Your task to perform on an android device: Go to Google Image 0: 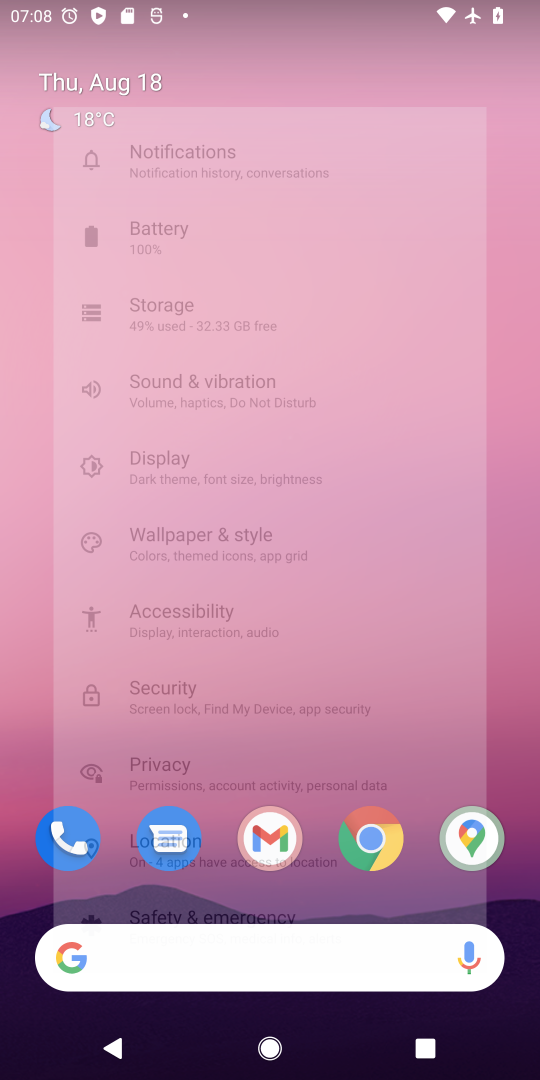
Step 0: press home button
Your task to perform on an android device: Go to Google Image 1: 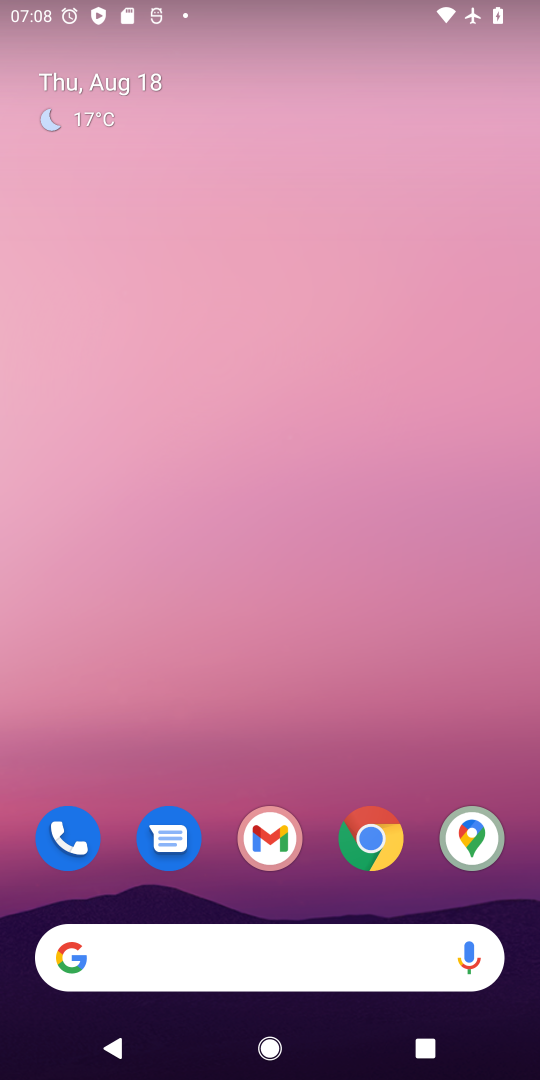
Step 1: drag from (329, 871) to (329, 26)
Your task to perform on an android device: Go to Google Image 2: 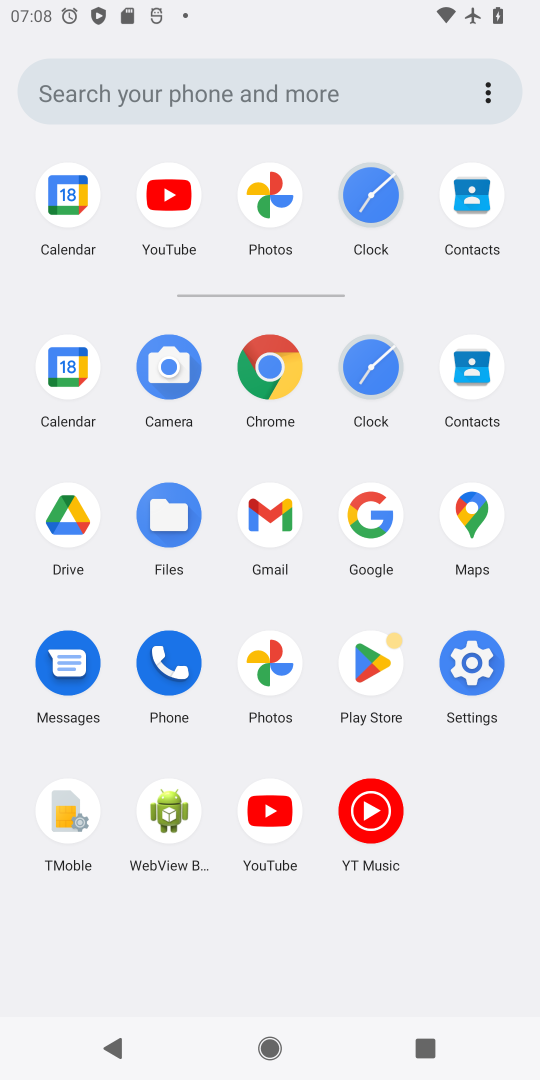
Step 2: click (379, 533)
Your task to perform on an android device: Go to Google Image 3: 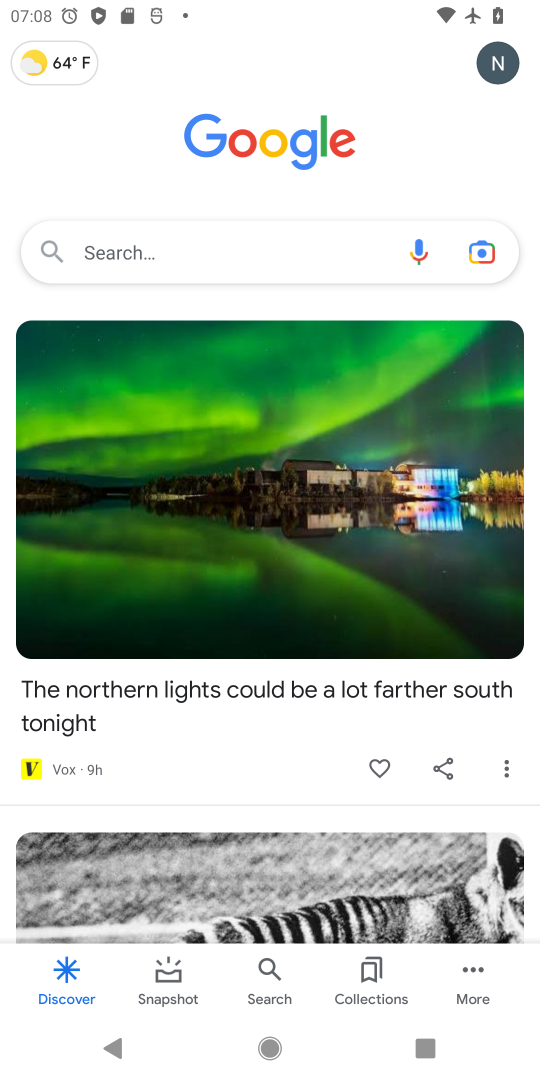
Step 3: task complete